Your task to perform on an android device: Open location settings Image 0: 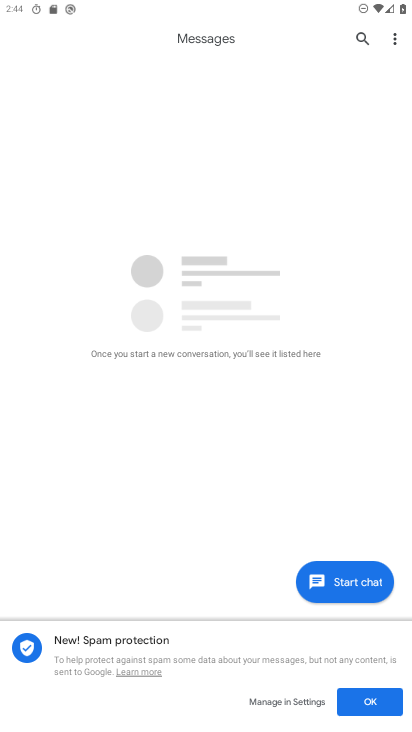
Step 0: press home button
Your task to perform on an android device: Open location settings Image 1: 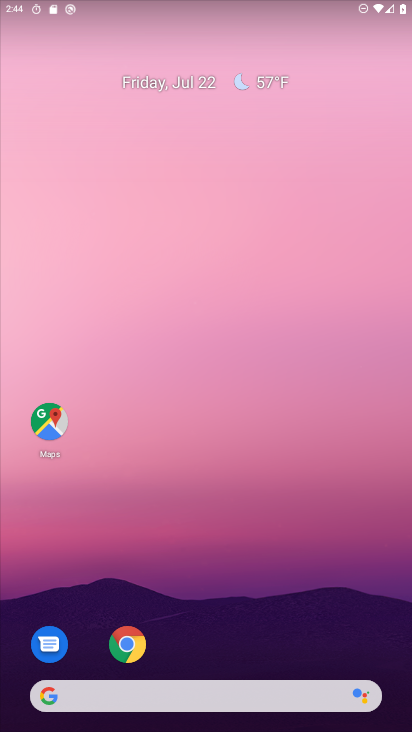
Step 1: drag from (248, 626) to (257, 201)
Your task to perform on an android device: Open location settings Image 2: 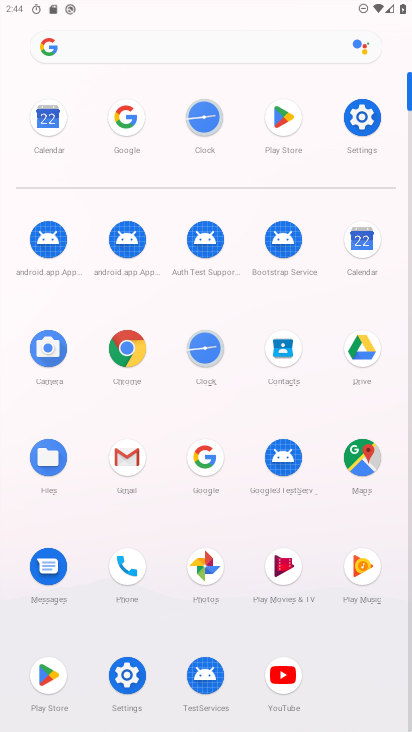
Step 2: click (353, 134)
Your task to perform on an android device: Open location settings Image 3: 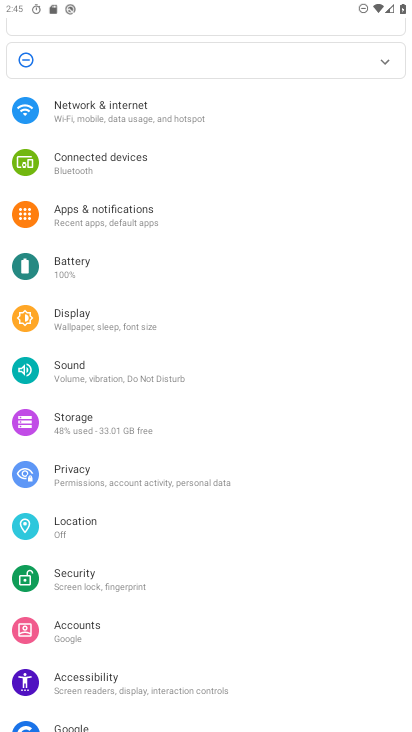
Step 3: click (126, 534)
Your task to perform on an android device: Open location settings Image 4: 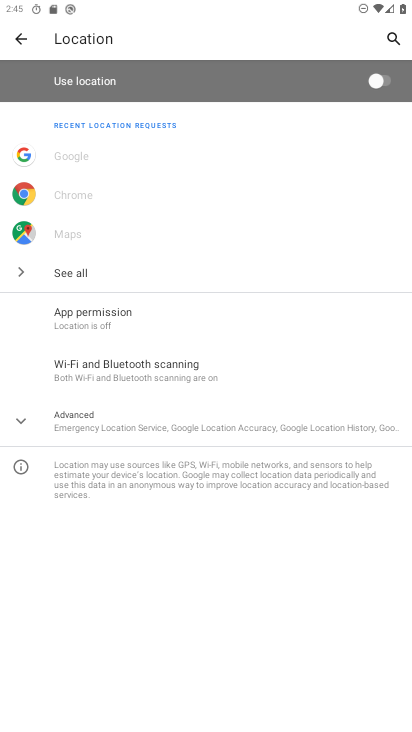
Step 4: task complete